Your task to perform on an android device: turn on priority inbox in the gmail app Image 0: 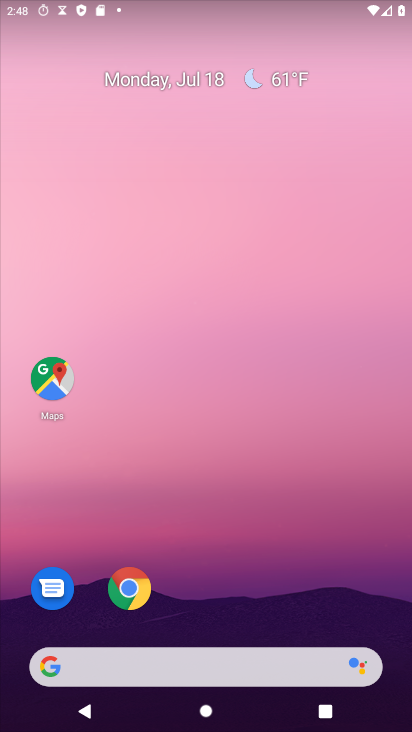
Step 0: drag from (303, 550) to (225, 22)
Your task to perform on an android device: turn on priority inbox in the gmail app Image 1: 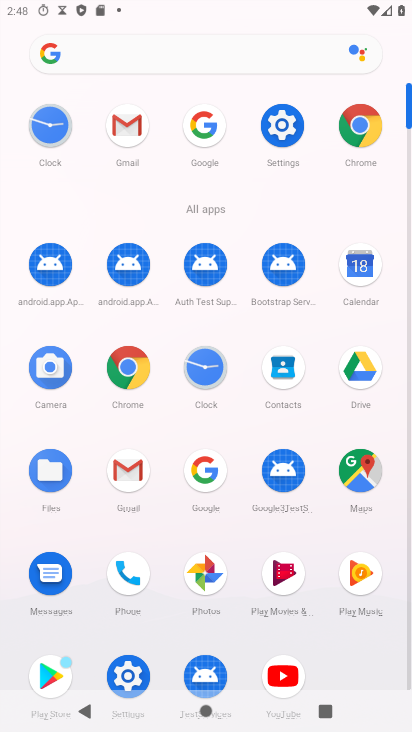
Step 1: click (126, 125)
Your task to perform on an android device: turn on priority inbox in the gmail app Image 2: 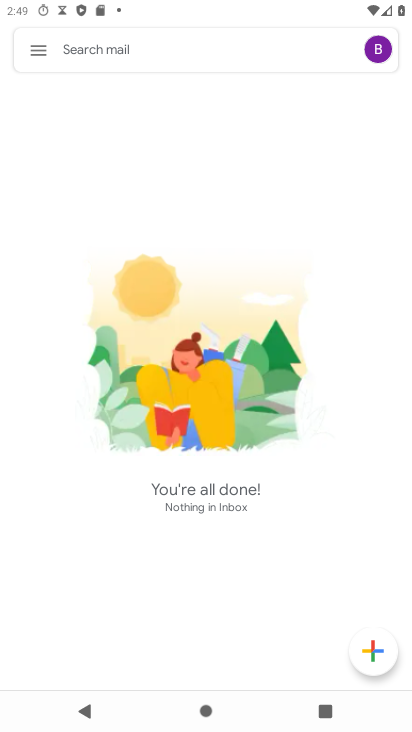
Step 2: click (46, 46)
Your task to perform on an android device: turn on priority inbox in the gmail app Image 3: 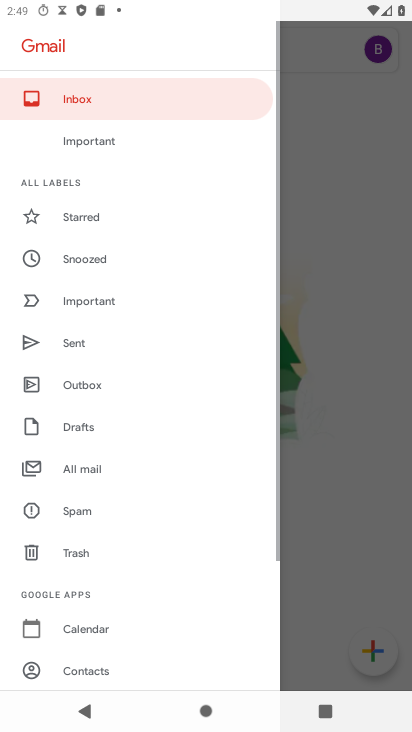
Step 3: drag from (107, 649) to (175, 116)
Your task to perform on an android device: turn on priority inbox in the gmail app Image 4: 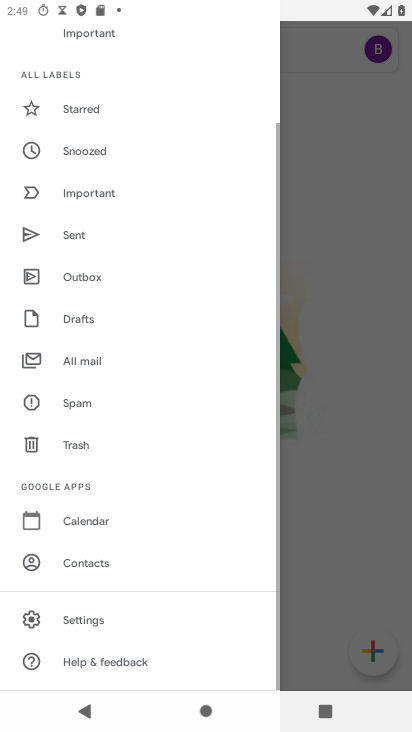
Step 4: click (90, 621)
Your task to perform on an android device: turn on priority inbox in the gmail app Image 5: 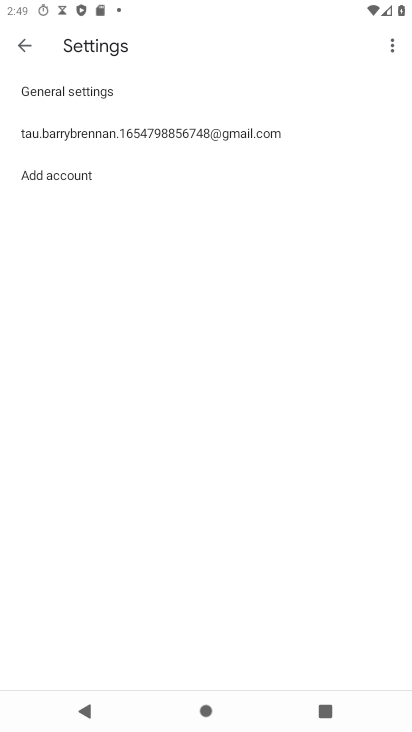
Step 5: click (68, 131)
Your task to perform on an android device: turn on priority inbox in the gmail app Image 6: 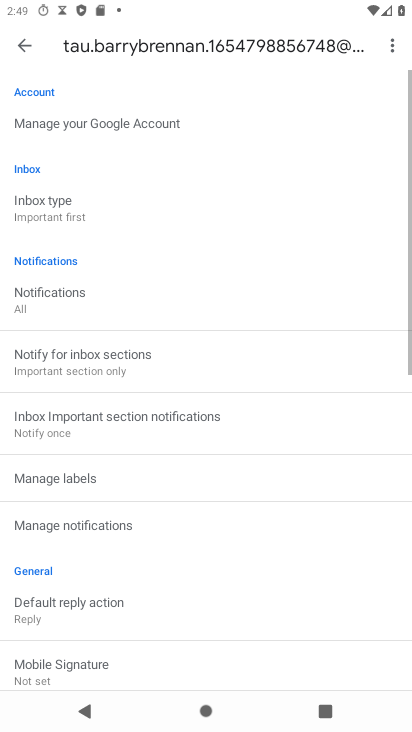
Step 6: click (41, 208)
Your task to perform on an android device: turn on priority inbox in the gmail app Image 7: 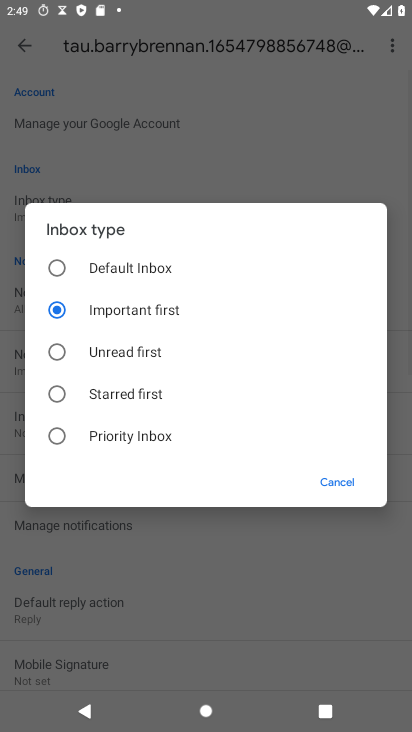
Step 7: click (110, 434)
Your task to perform on an android device: turn on priority inbox in the gmail app Image 8: 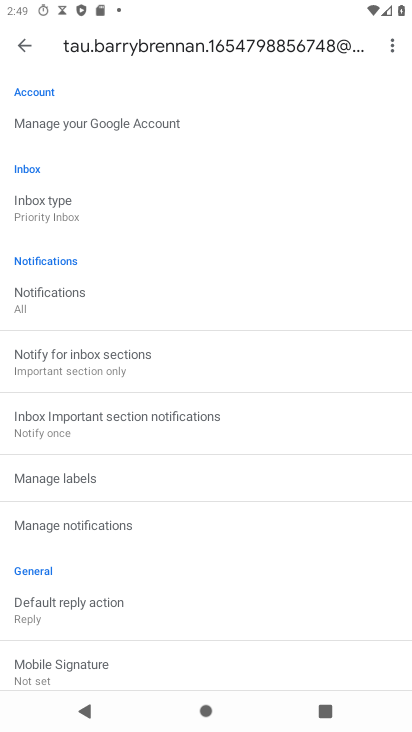
Step 8: task complete